Your task to perform on an android device: Open ESPN.com Image 0: 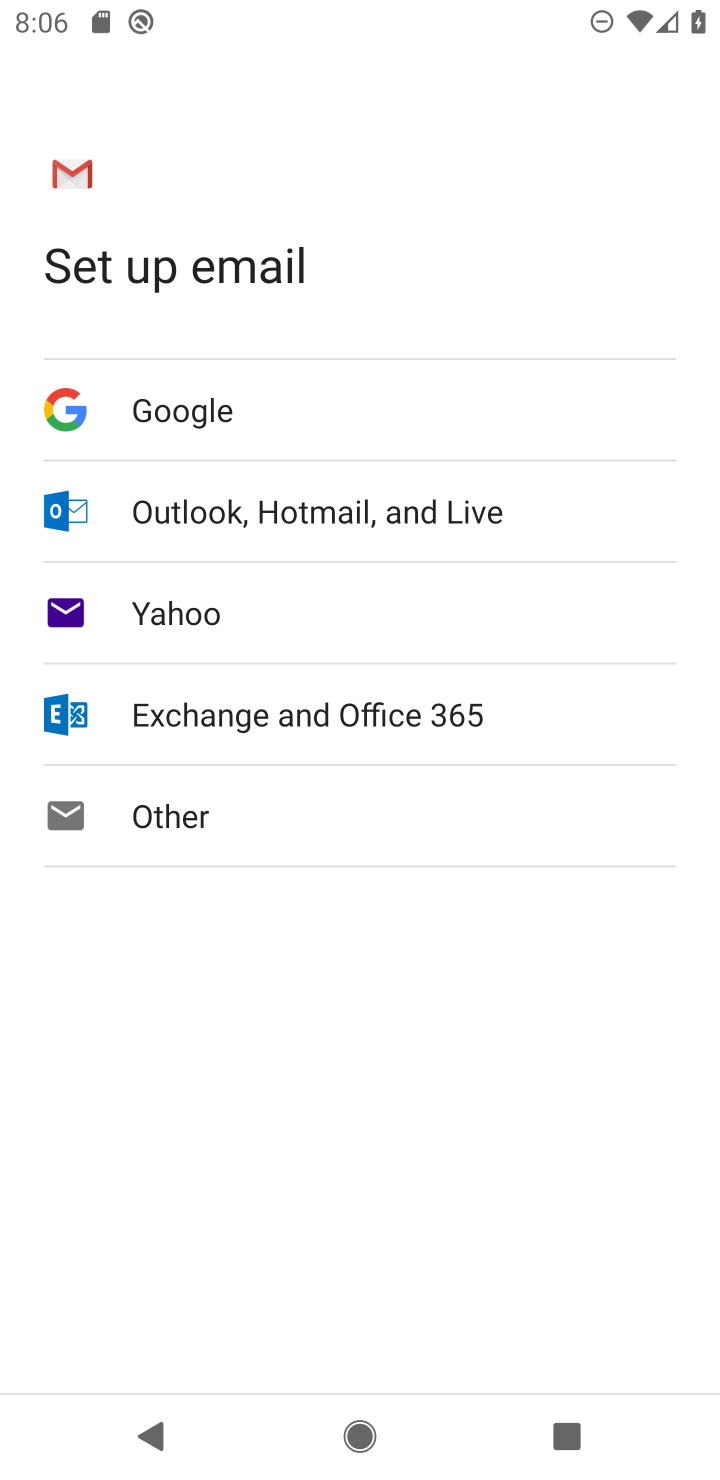
Step 0: press home button
Your task to perform on an android device: Open ESPN.com Image 1: 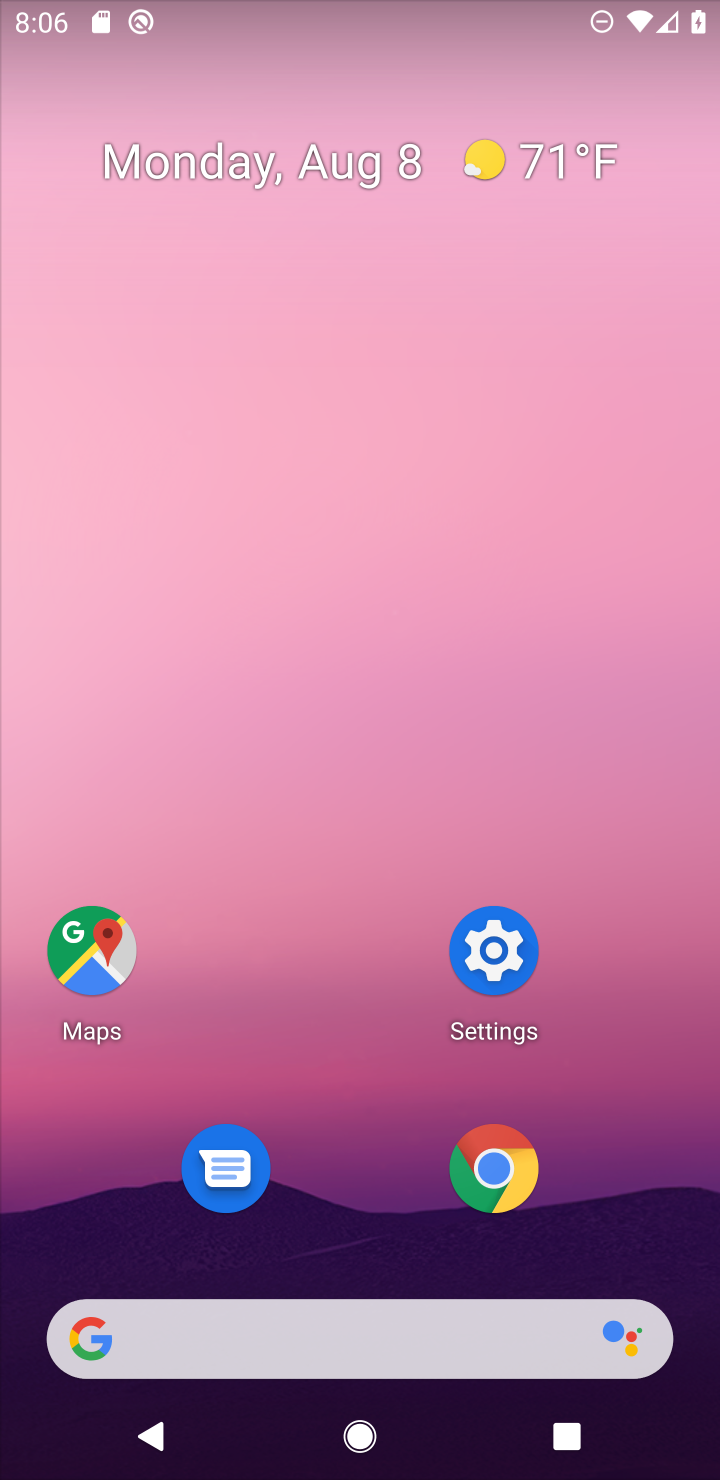
Step 1: click (502, 1175)
Your task to perform on an android device: Open ESPN.com Image 2: 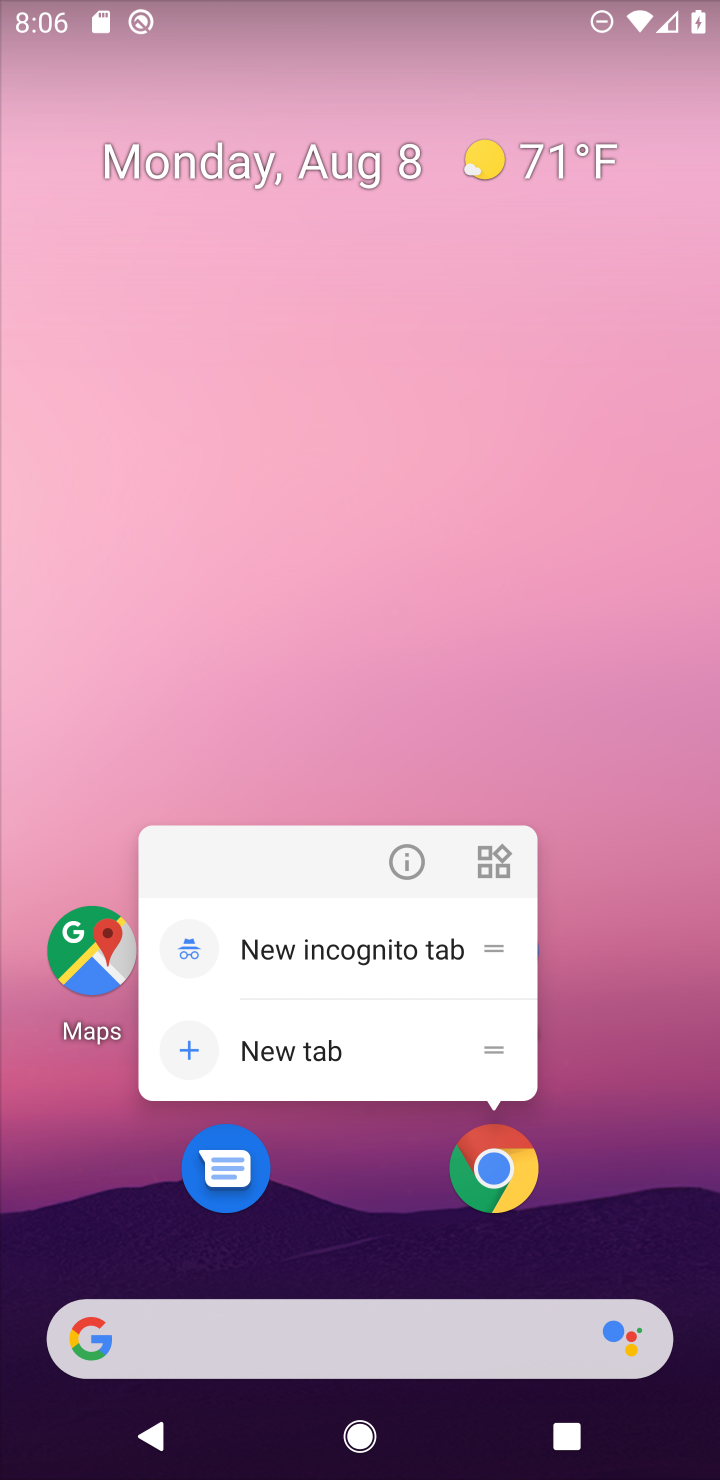
Step 2: click (504, 1182)
Your task to perform on an android device: Open ESPN.com Image 3: 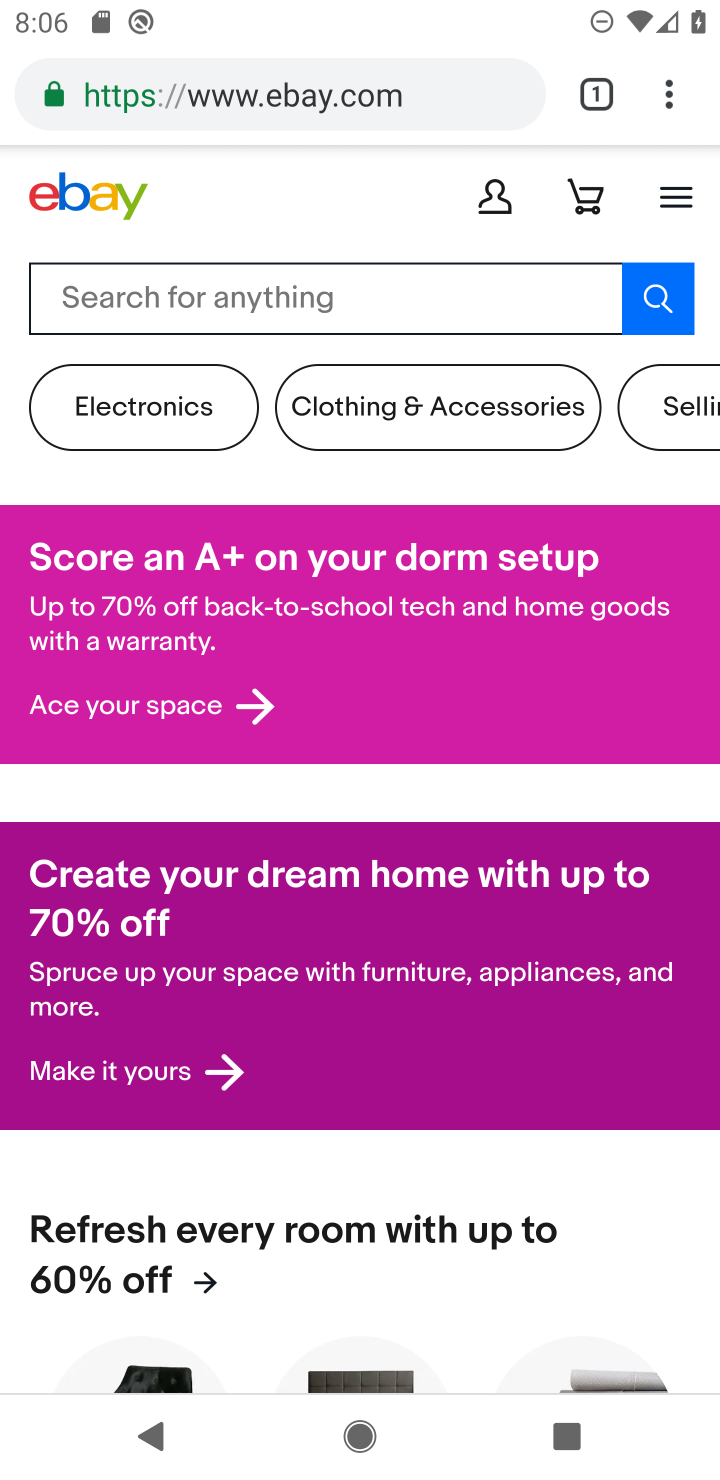
Step 3: drag from (667, 102) to (481, 201)
Your task to perform on an android device: Open ESPN.com Image 4: 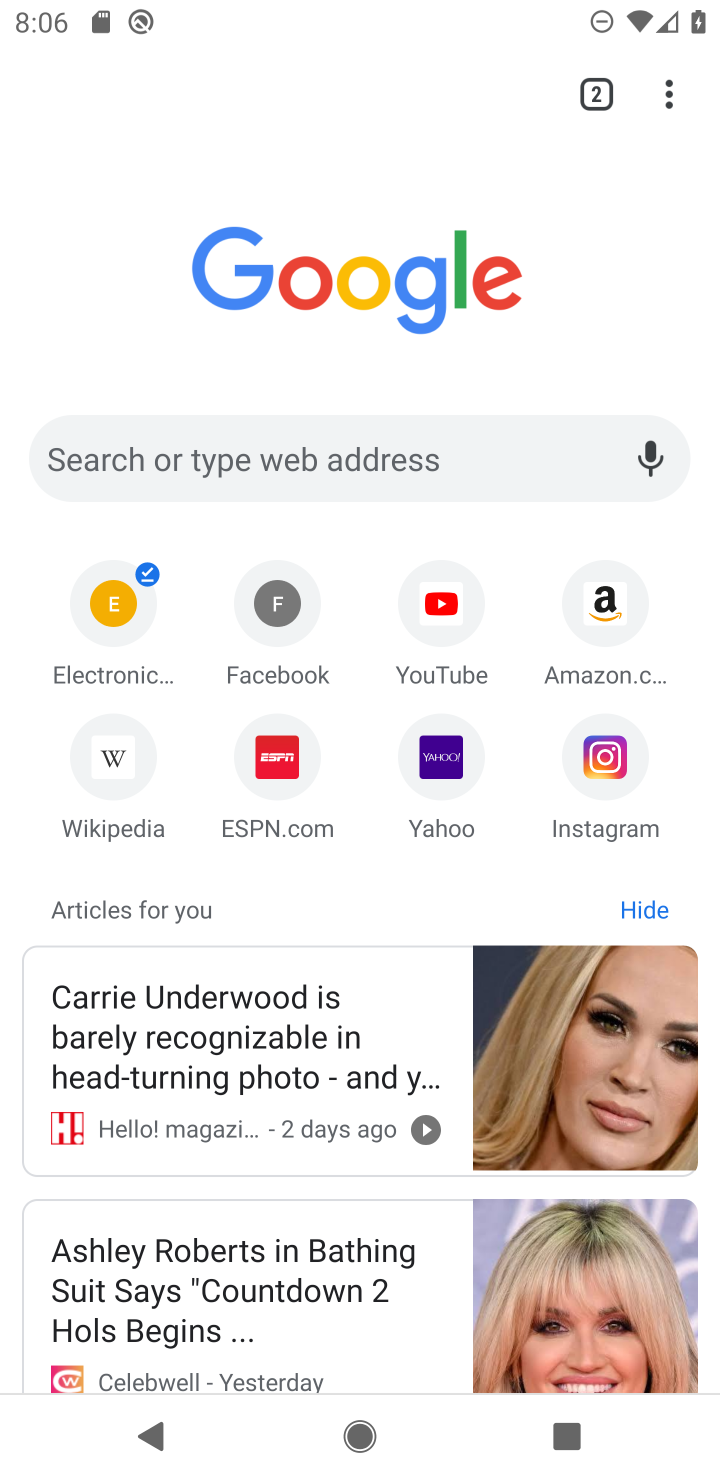
Step 4: click (288, 752)
Your task to perform on an android device: Open ESPN.com Image 5: 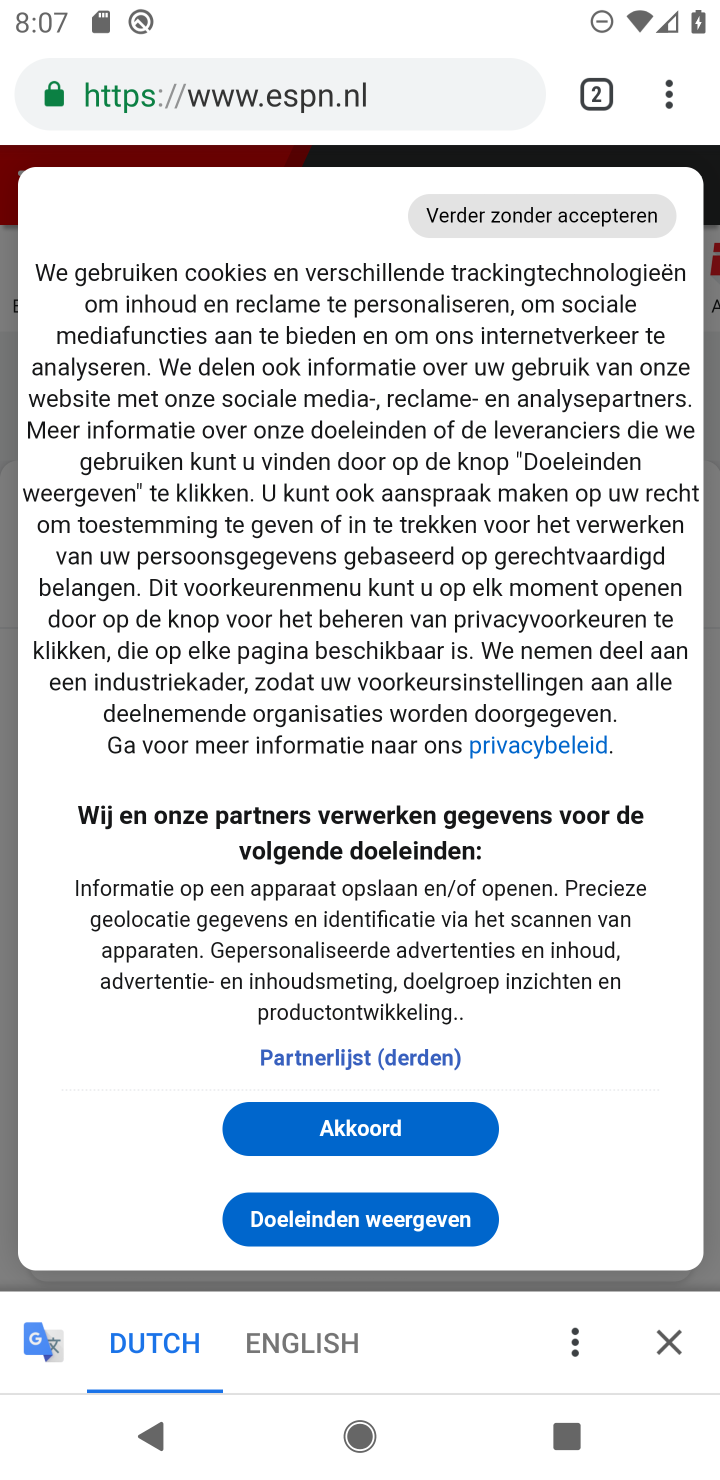
Step 5: click (329, 1337)
Your task to perform on an android device: Open ESPN.com Image 6: 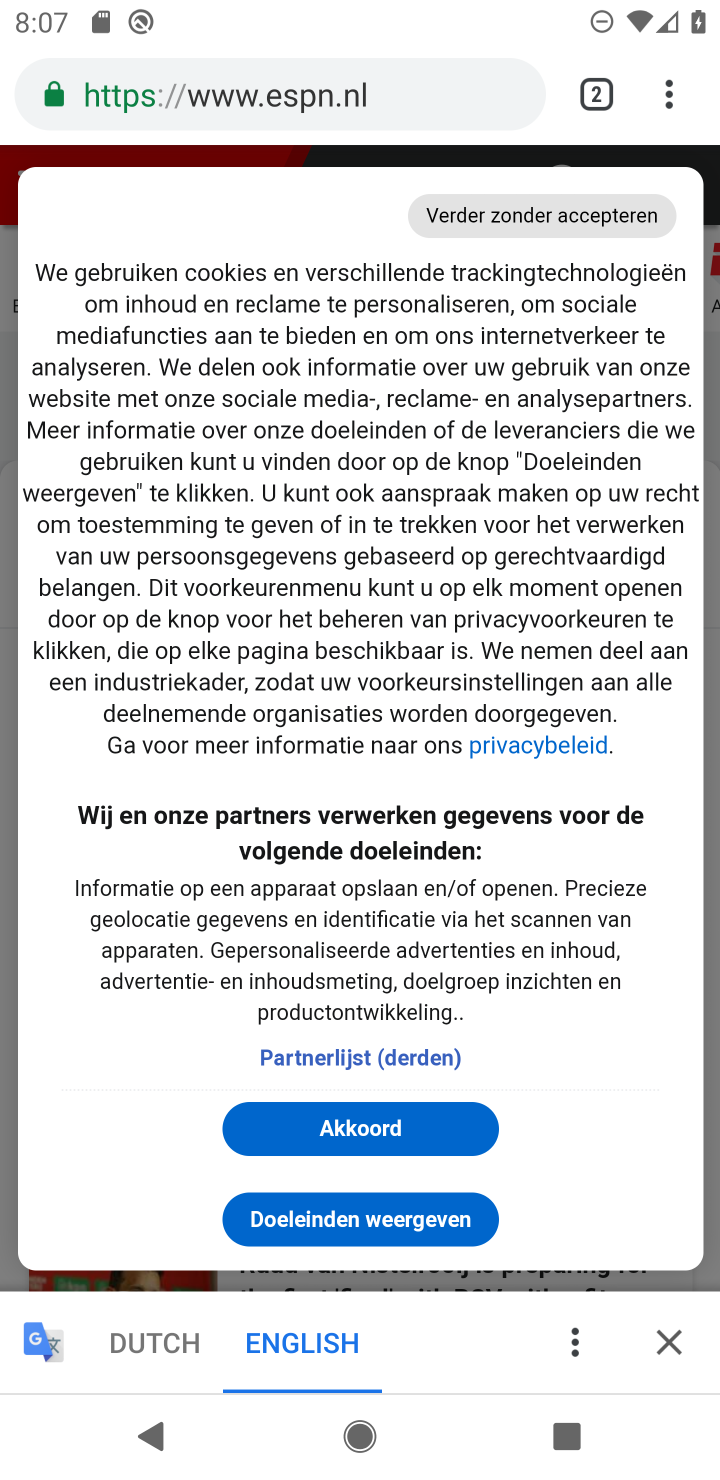
Step 6: click (414, 1128)
Your task to perform on an android device: Open ESPN.com Image 7: 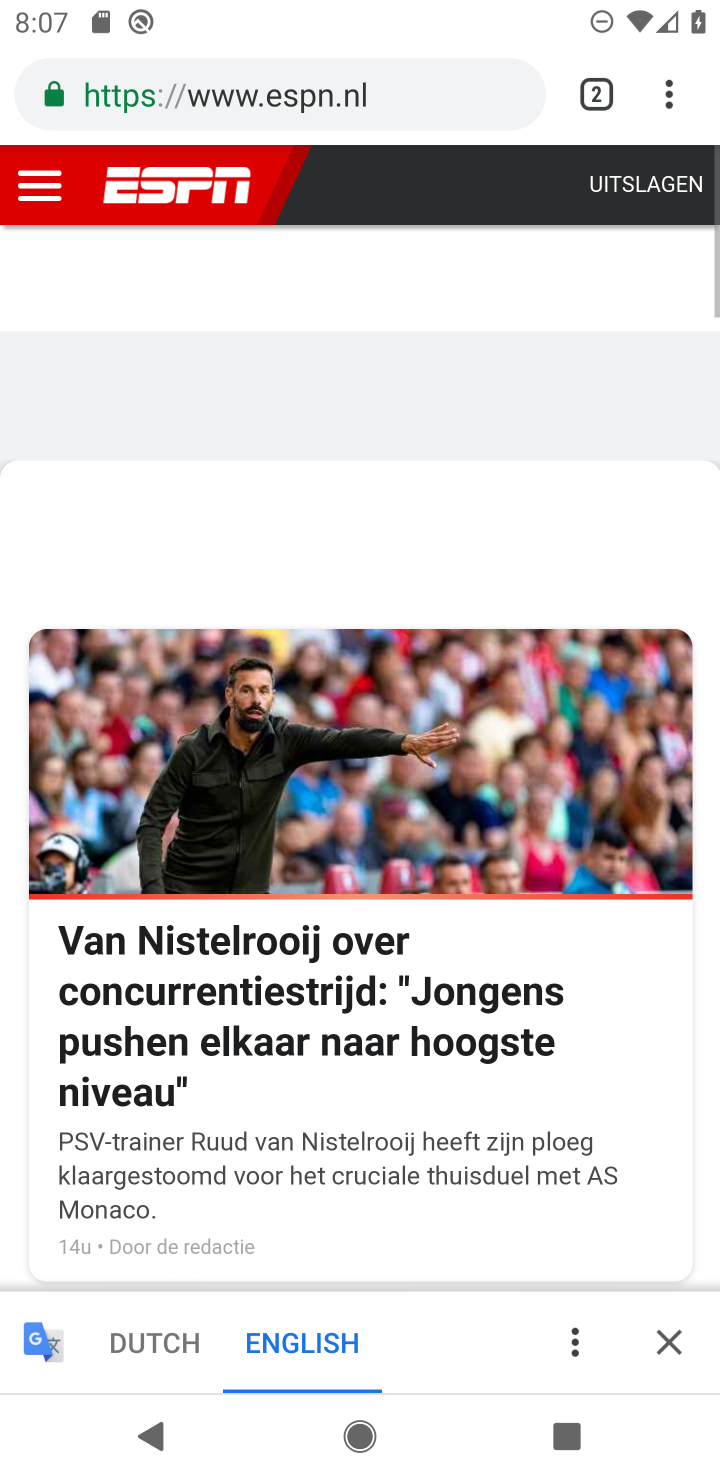
Step 7: task complete